Your task to perform on an android device: allow notifications from all sites in the chrome app Image 0: 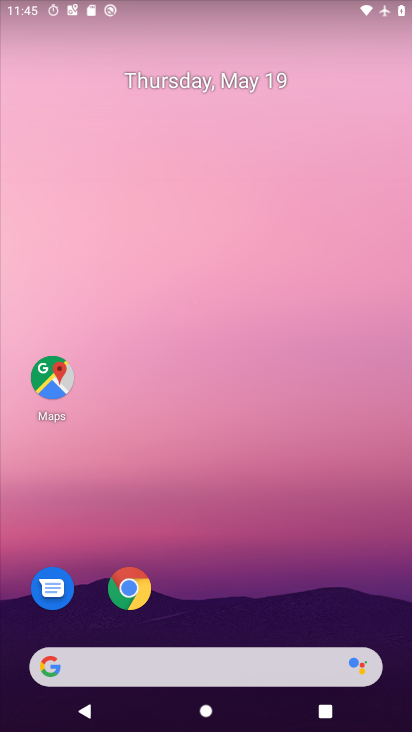
Step 0: click (133, 592)
Your task to perform on an android device: allow notifications from all sites in the chrome app Image 1: 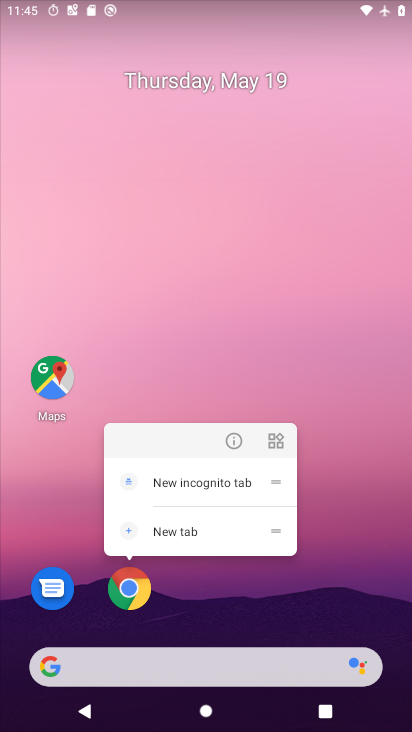
Step 1: click (128, 595)
Your task to perform on an android device: allow notifications from all sites in the chrome app Image 2: 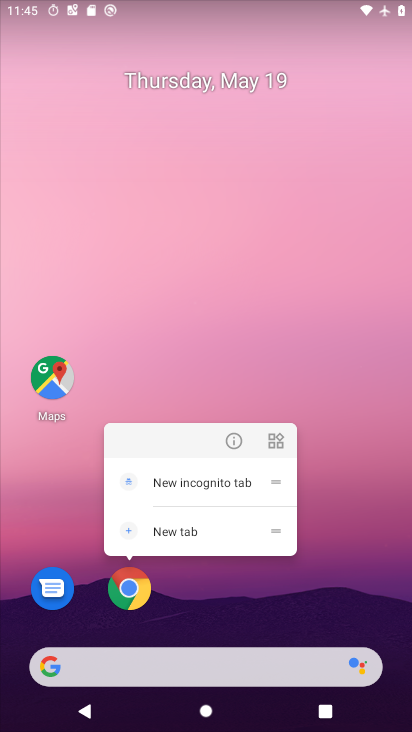
Step 2: click (128, 595)
Your task to perform on an android device: allow notifications from all sites in the chrome app Image 3: 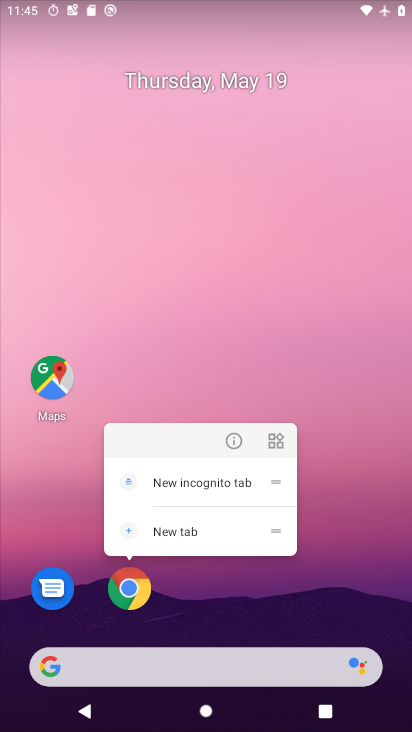
Step 3: click (126, 597)
Your task to perform on an android device: allow notifications from all sites in the chrome app Image 4: 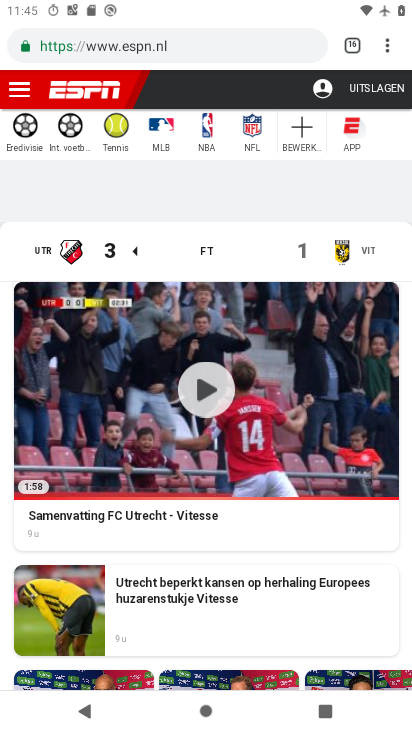
Step 4: drag from (386, 43) to (237, 545)
Your task to perform on an android device: allow notifications from all sites in the chrome app Image 5: 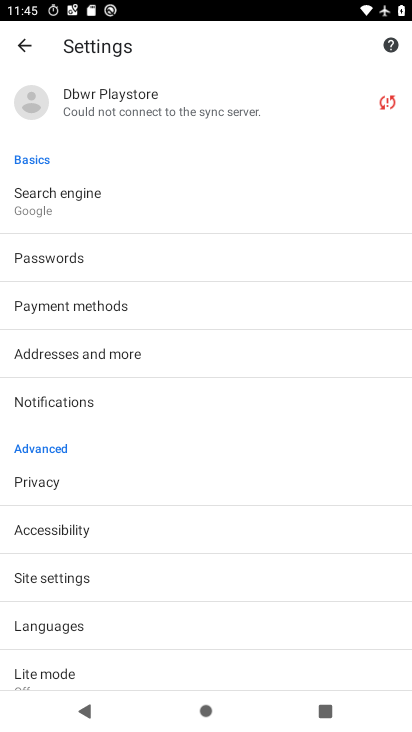
Step 5: click (85, 574)
Your task to perform on an android device: allow notifications from all sites in the chrome app Image 6: 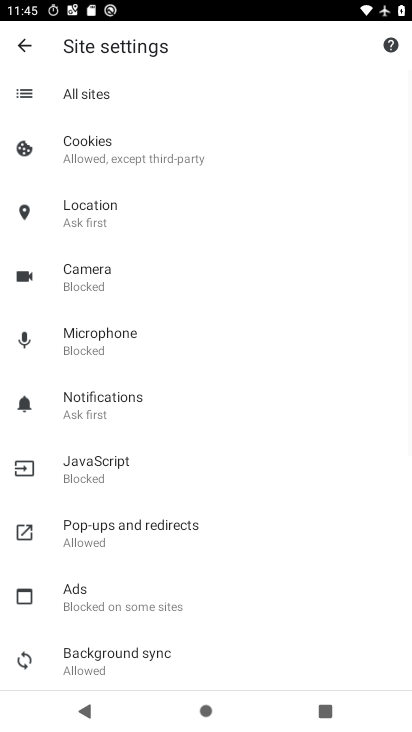
Step 6: click (119, 408)
Your task to perform on an android device: allow notifications from all sites in the chrome app Image 7: 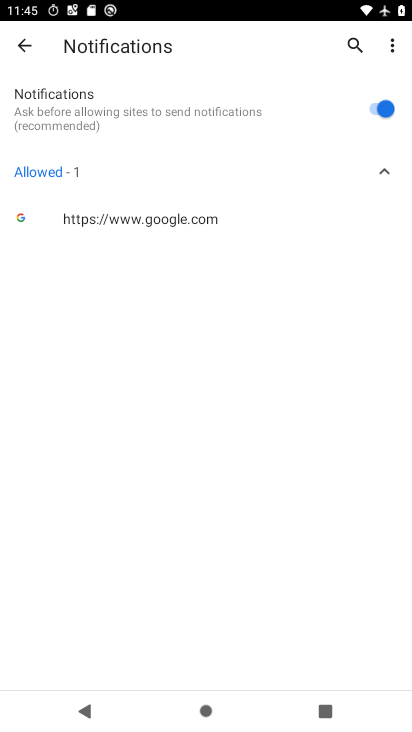
Step 7: task complete